Your task to perform on an android device: Open Chrome and go to the settings page Image 0: 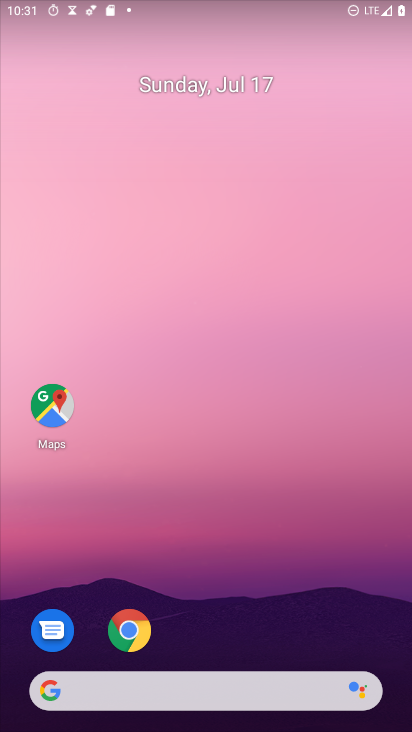
Step 0: drag from (227, 677) to (116, 3)
Your task to perform on an android device: Open Chrome and go to the settings page Image 1: 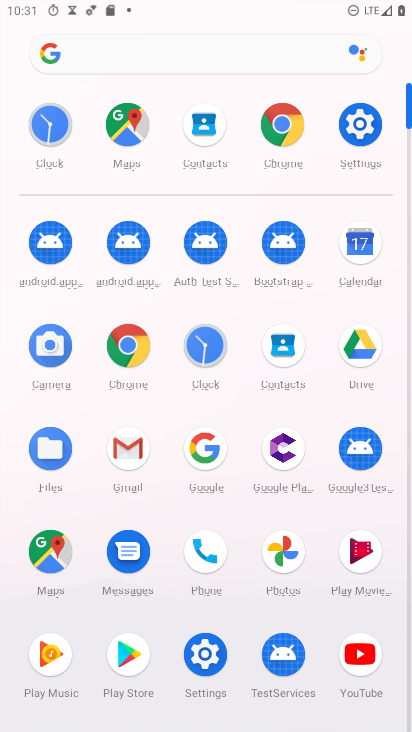
Step 1: click (136, 339)
Your task to perform on an android device: Open Chrome and go to the settings page Image 2: 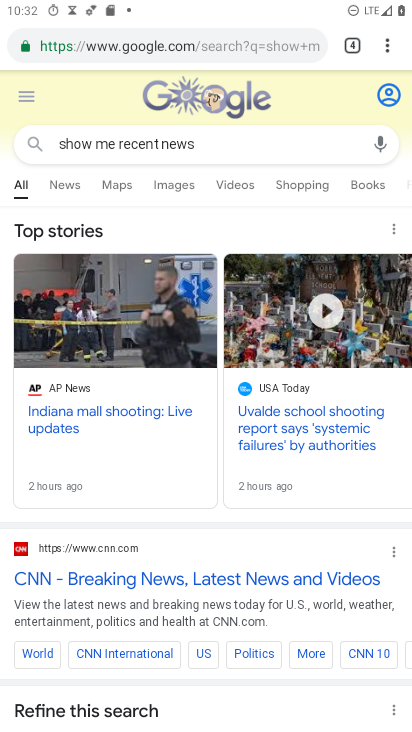
Step 2: click (377, 44)
Your task to perform on an android device: Open Chrome and go to the settings page Image 3: 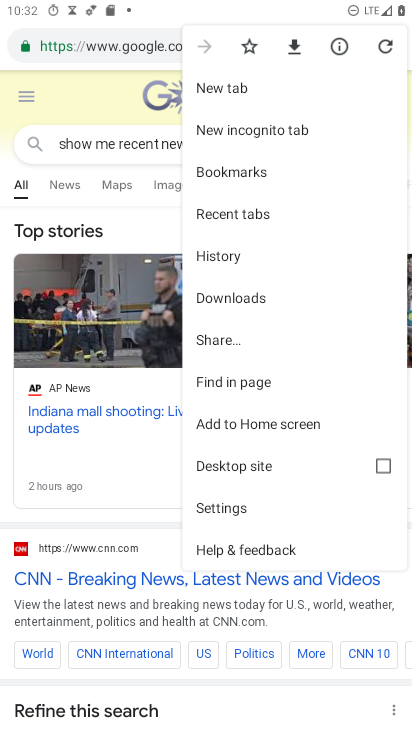
Step 3: click (223, 505)
Your task to perform on an android device: Open Chrome and go to the settings page Image 4: 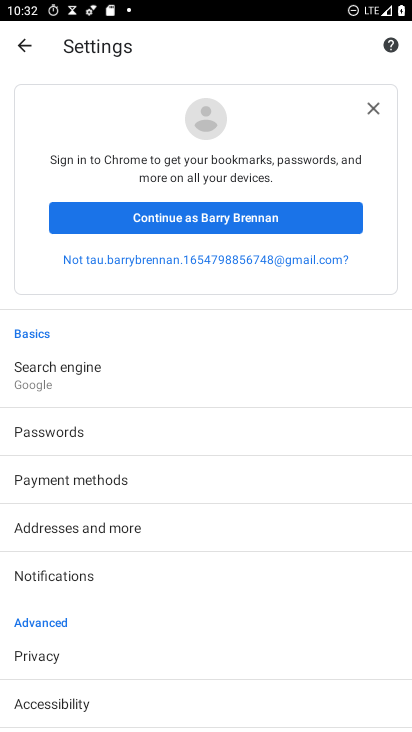
Step 4: task complete